Your task to perform on an android device: See recent photos Image 0: 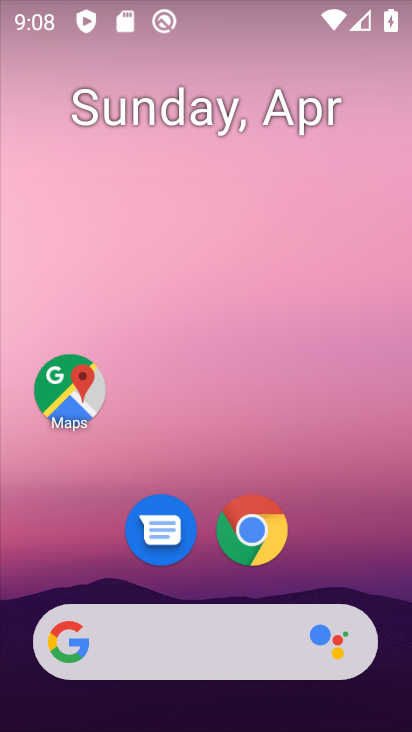
Step 0: drag from (367, 583) to (378, 0)
Your task to perform on an android device: See recent photos Image 1: 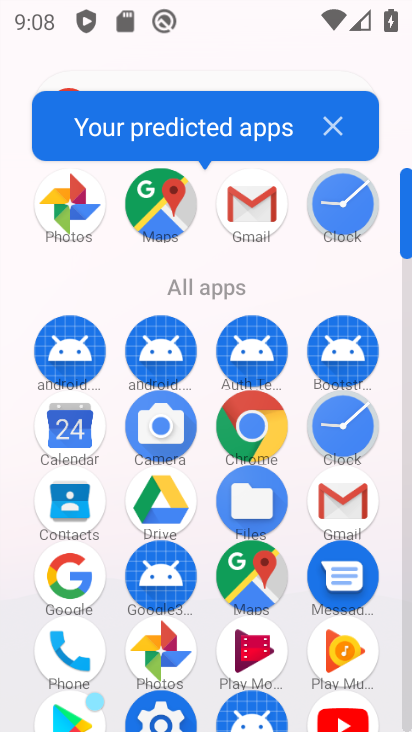
Step 1: click (68, 208)
Your task to perform on an android device: See recent photos Image 2: 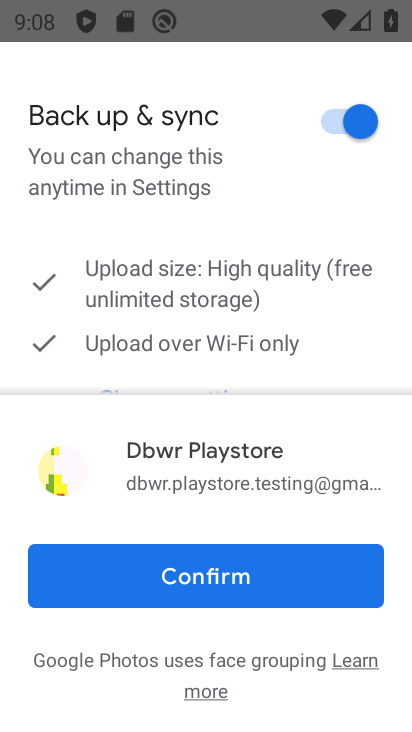
Step 2: click (216, 572)
Your task to perform on an android device: See recent photos Image 3: 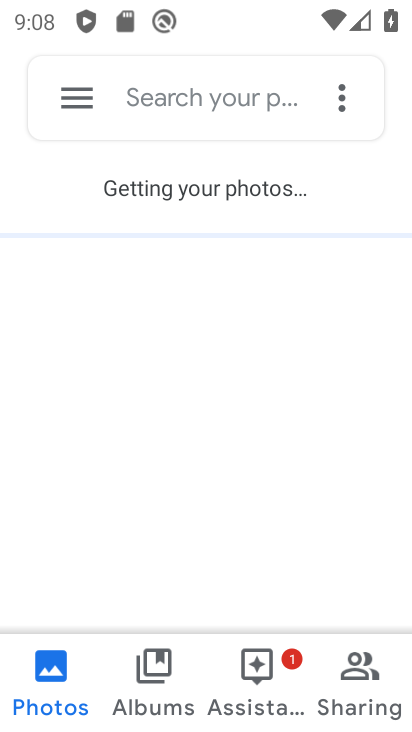
Step 3: task complete